Your task to perform on an android device: Set the phone to "Do not disturb". Image 0: 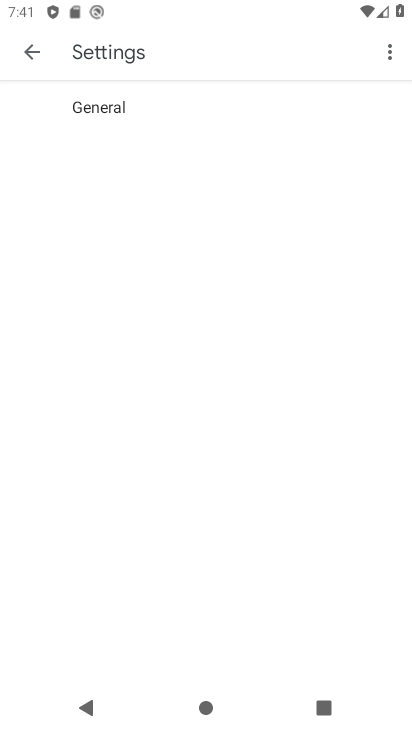
Step 0: press home button
Your task to perform on an android device: Set the phone to "Do not disturb". Image 1: 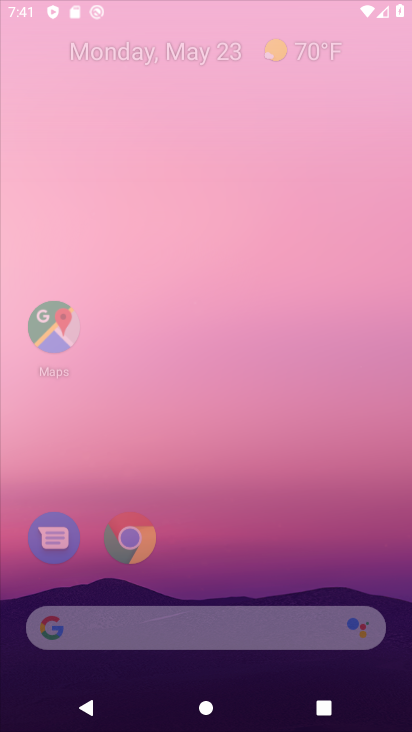
Step 1: drag from (169, 540) to (238, 3)
Your task to perform on an android device: Set the phone to "Do not disturb". Image 2: 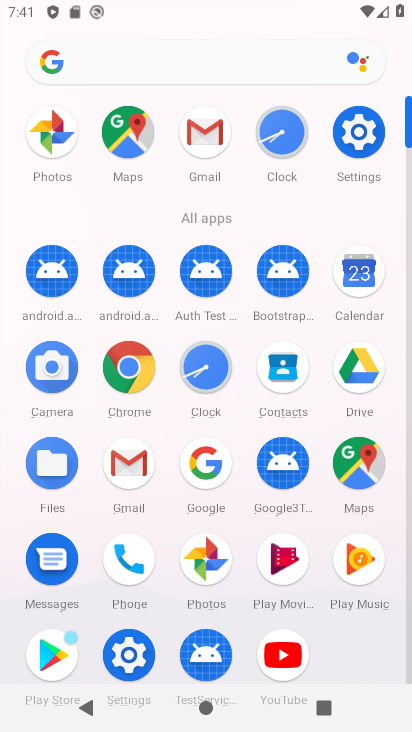
Step 2: click (370, 121)
Your task to perform on an android device: Set the phone to "Do not disturb". Image 3: 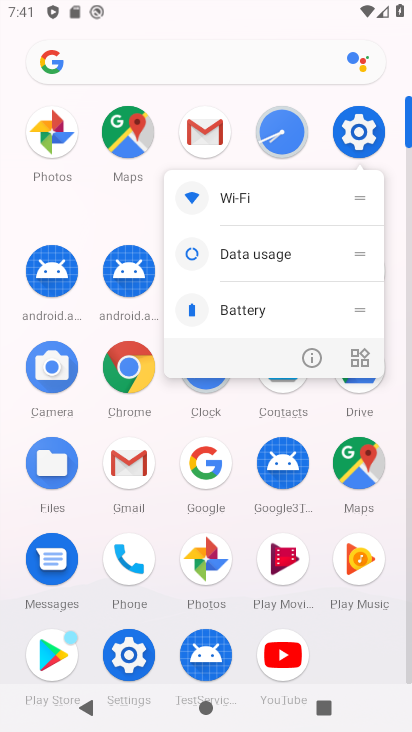
Step 3: click (313, 354)
Your task to perform on an android device: Set the phone to "Do not disturb". Image 4: 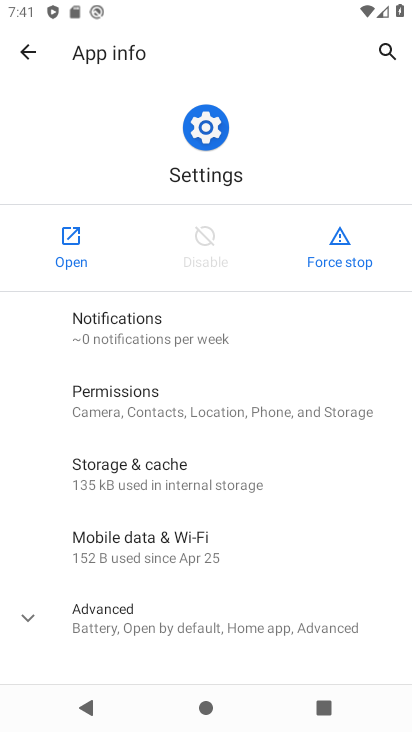
Step 4: click (60, 248)
Your task to perform on an android device: Set the phone to "Do not disturb". Image 5: 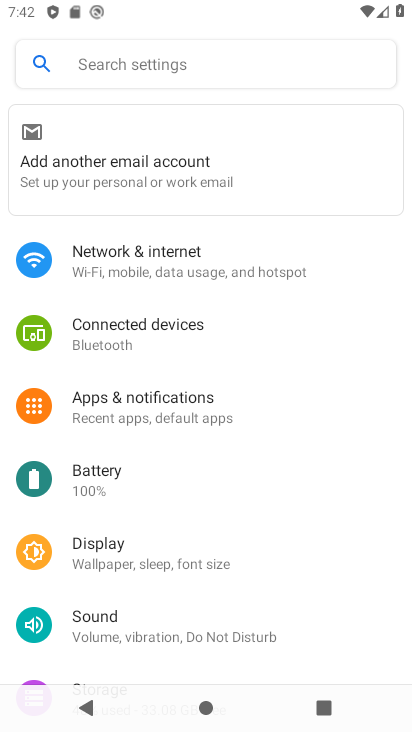
Step 5: drag from (235, 579) to (308, 180)
Your task to perform on an android device: Set the phone to "Do not disturb". Image 6: 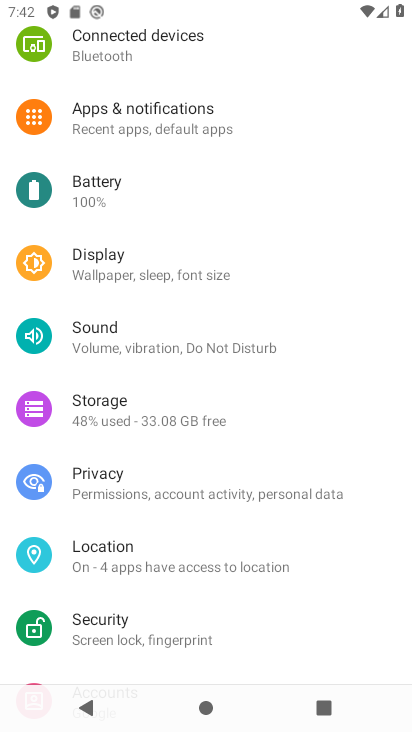
Step 6: click (181, 127)
Your task to perform on an android device: Set the phone to "Do not disturb". Image 7: 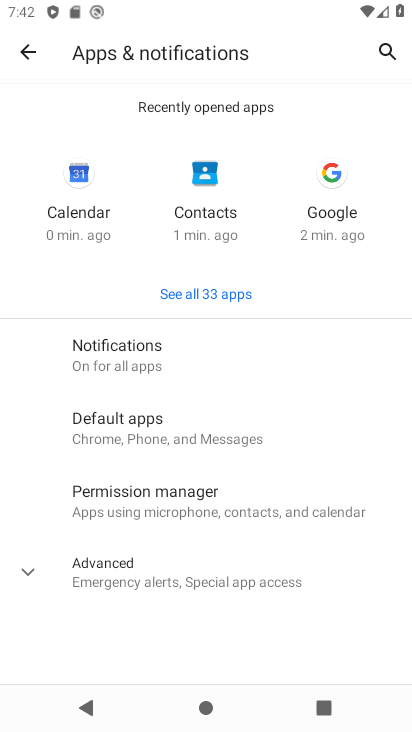
Step 7: click (123, 371)
Your task to perform on an android device: Set the phone to "Do not disturb". Image 8: 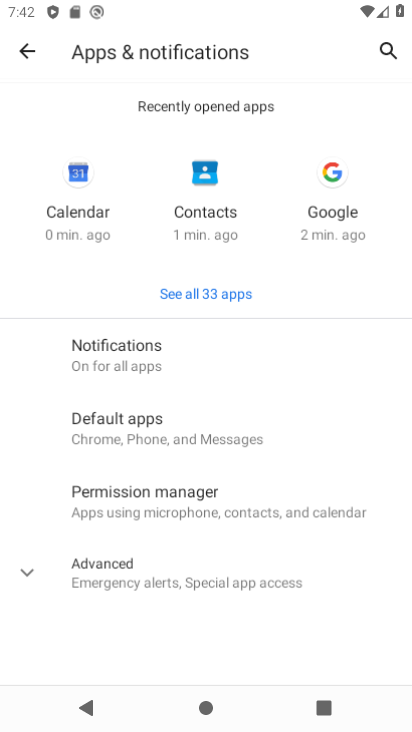
Step 8: drag from (227, 440) to (359, 50)
Your task to perform on an android device: Set the phone to "Do not disturb". Image 9: 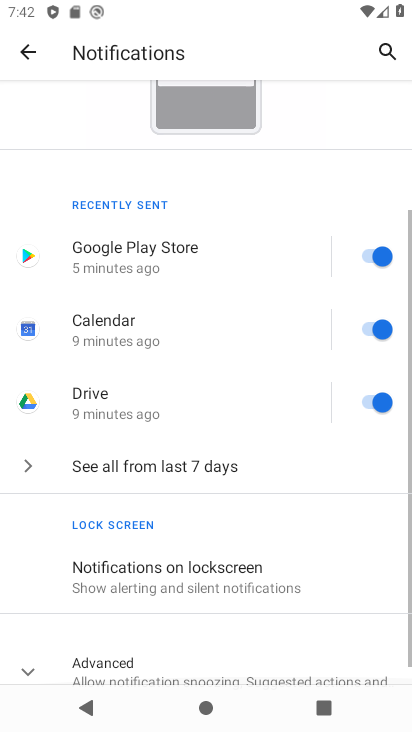
Step 9: drag from (239, 627) to (305, 132)
Your task to perform on an android device: Set the phone to "Do not disturb". Image 10: 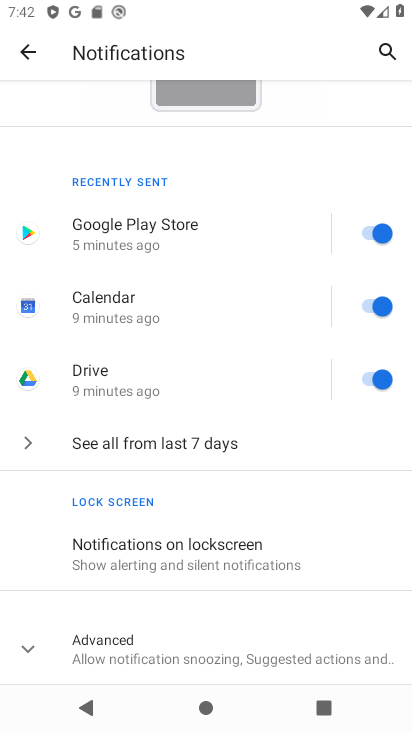
Step 10: click (138, 661)
Your task to perform on an android device: Set the phone to "Do not disturb". Image 11: 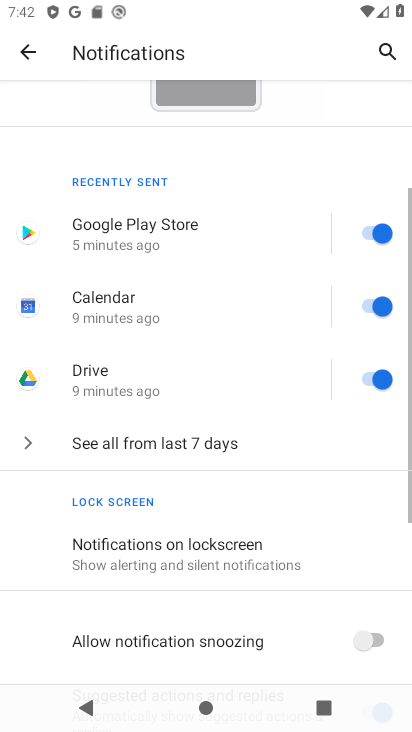
Step 11: drag from (136, 656) to (371, 55)
Your task to perform on an android device: Set the phone to "Do not disturb". Image 12: 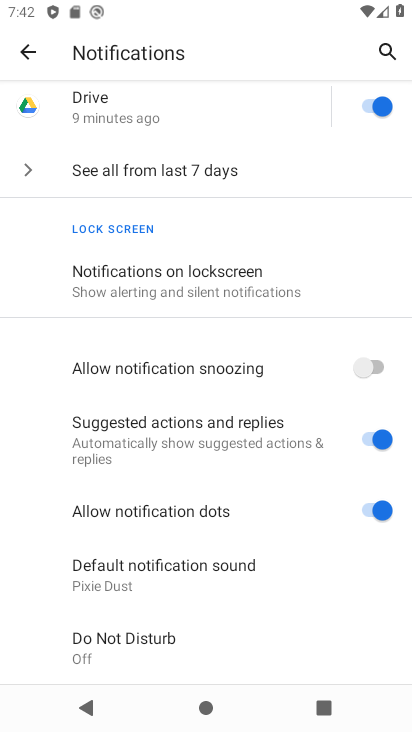
Step 12: click (160, 639)
Your task to perform on an android device: Set the phone to "Do not disturb". Image 13: 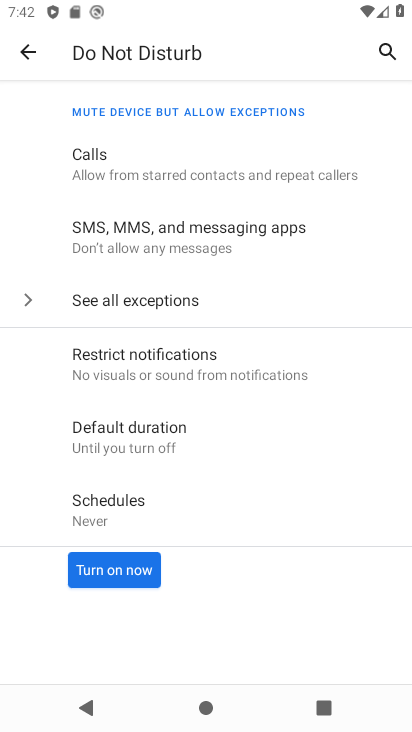
Step 13: drag from (158, 624) to (288, 73)
Your task to perform on an android device: Set the phone to "Do not disturb". Image 14: 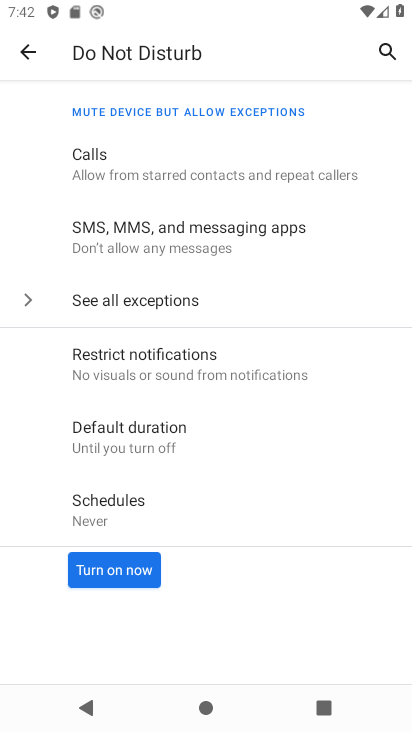
Step 14: click (93, 572)
Your task to perform on an android device: Set the phone to "Do not disturb". Image 15: 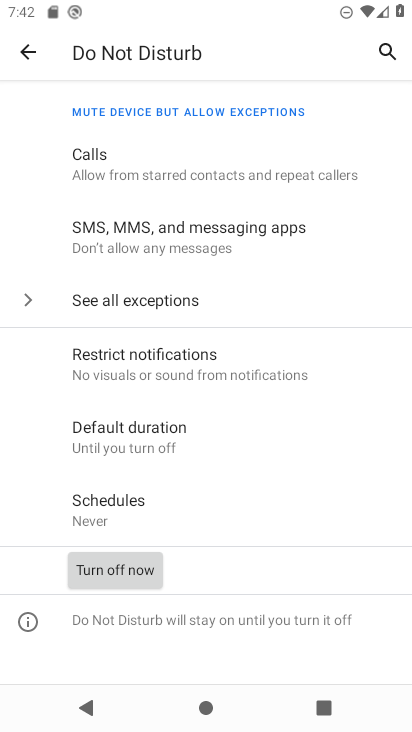
Step 15: task complete